Your task to perform on an android device: add a contact Image 0: 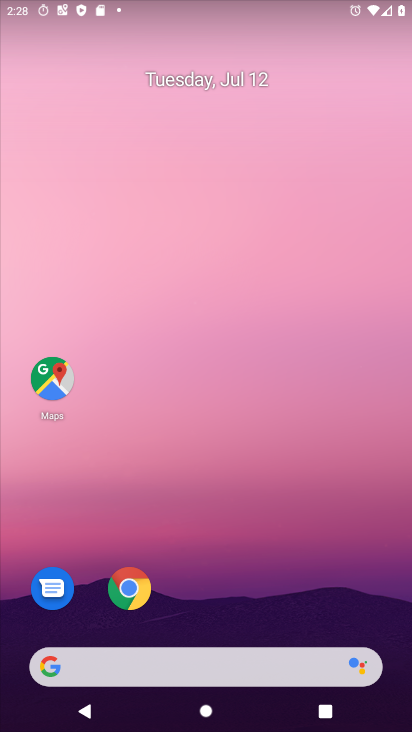
Step 0: click (242, 118)
Your task to perform on an android device: add a contact Image 1: 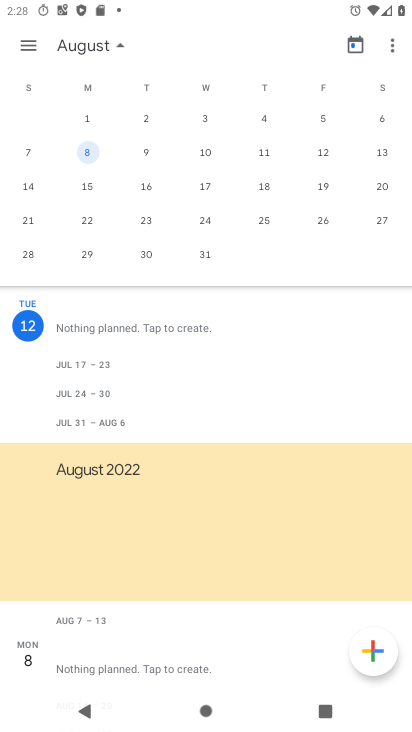
Step 1: drag from (207, 610) to (268, 119)
Your task to perform on an android device: add a contact Image 2: 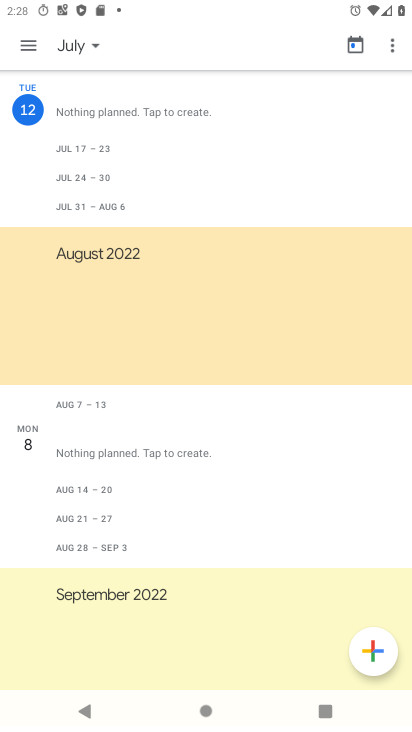
Step 2: press home button
Your task to perform on an android device: add a contact Image 3: 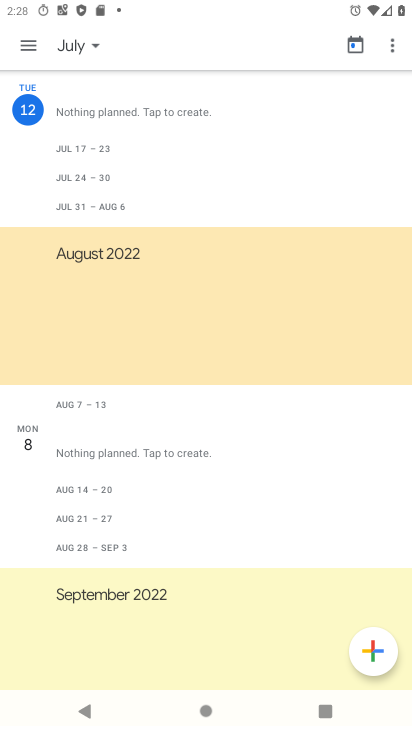
Step 3: drag from (210, 615) to (232, 223)
Your task to perform on an android device: add a contact Image 4: 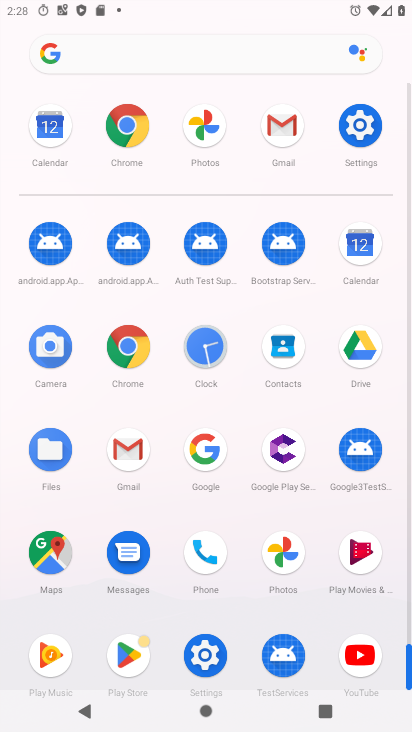
Step 4: click (288, 321)
Your task to perform on an android device: add a contact Image 5: 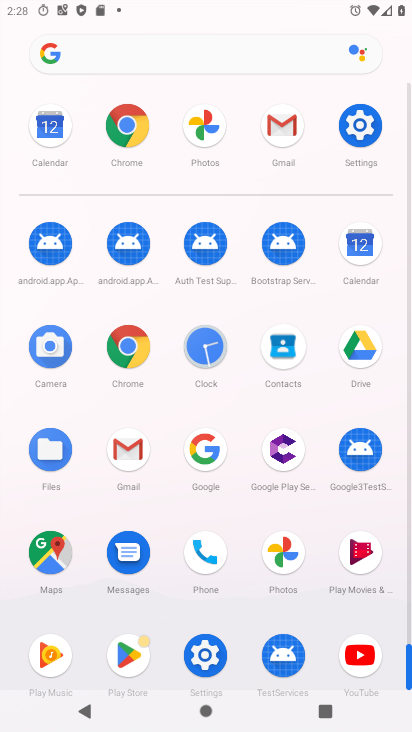
Step 5: click (284, 333)
Your task to perform on an android device: add a contact Image 6: 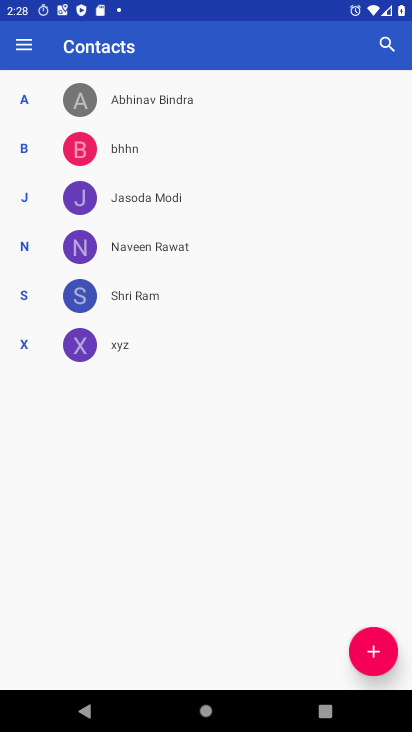
Step 6: drag from (228, 589) to (235, 363)
Your task to perform on an android device: add a contact Image 7: 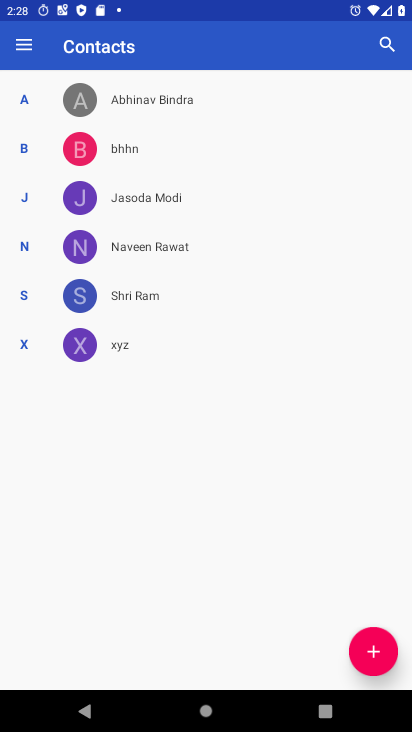
Step 7: click (364, 664)
Your task to perform on an android device: add a contact Image 8: 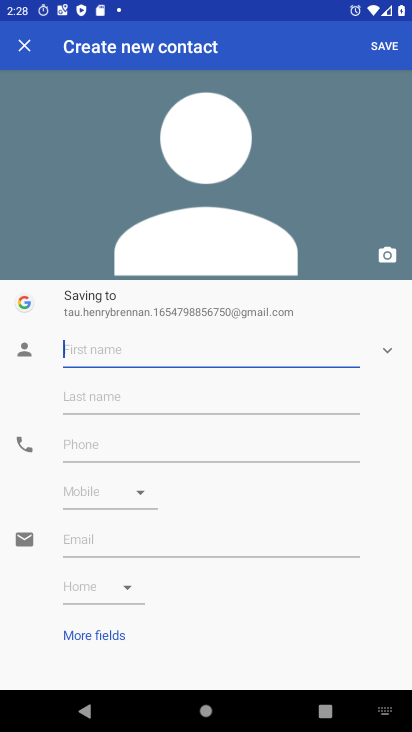
Step 8: click (66, 356)
Your task to perform on an android device: add a contact Image 9: 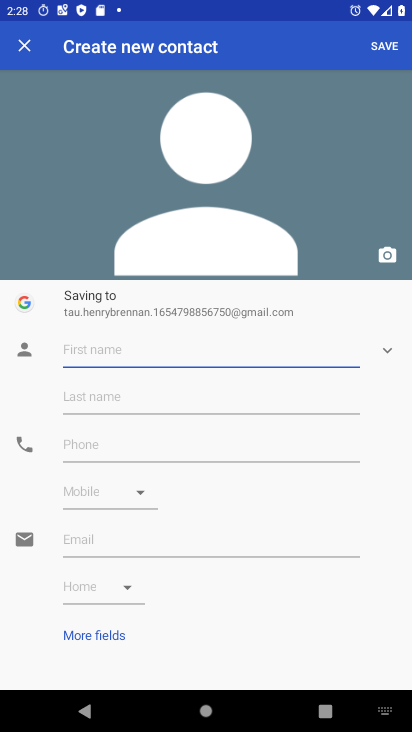
Step 9: type "bfgbf"
Your task to perform on an android device: add a contact Image 10: 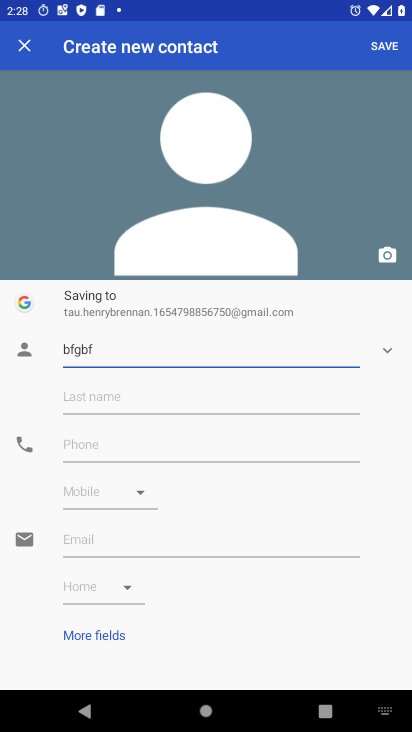
Step 10: click (383, 39)
Your task to perform on an android device: add a contact Image 11: 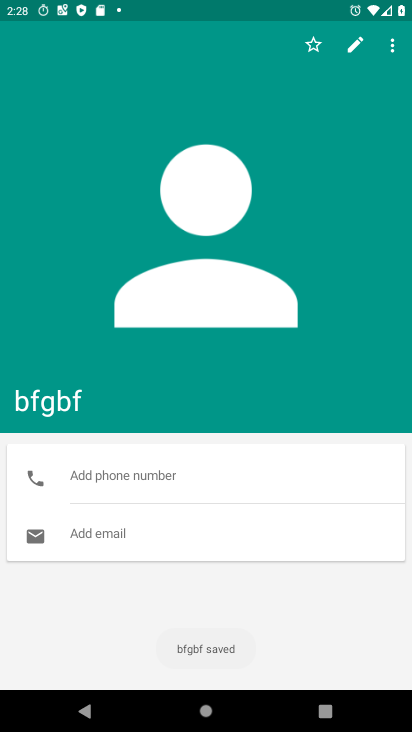
Step 11: task complete